Your task to perform on an android device: Is it going to rain this weekend? Image 0: 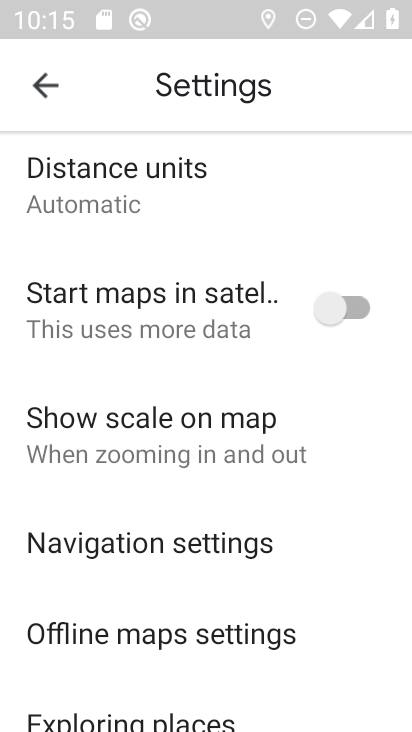
Step 0: press home button
Your task to perform on an android device: Is it going to rain this weekend? Image 1: 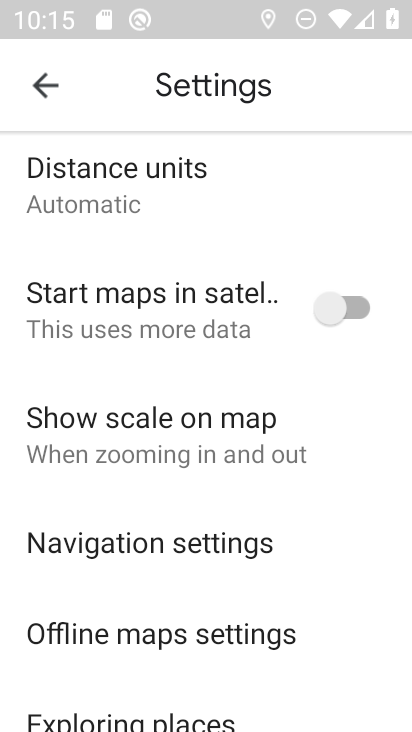
Step 1: press home button
Your task to perform on an android device: Is it going to rain this weekend? Image 2: 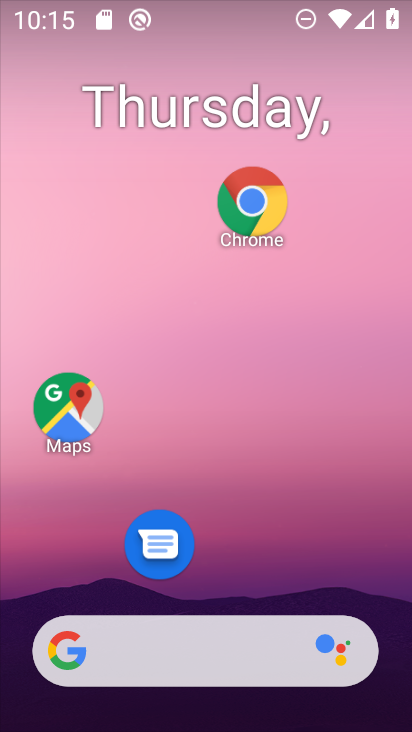
Step 2: drag from (10, 261) to (409, 277)
Your task to perform on an android device: Is it going to rain this weekend? Image 3: 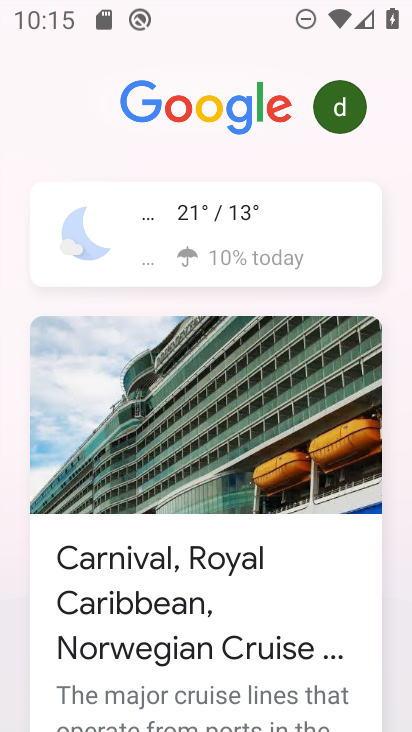
Step 3: click (209, 221)
Your task to perform on an android device: Is it going to rain this weekend? Image 4: 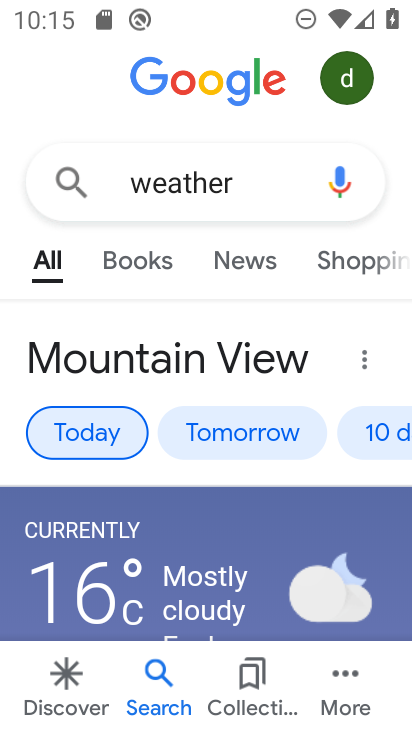
Step 4: task complete